Your task to perform on an android device: turn off notifications in google photos Image 0: 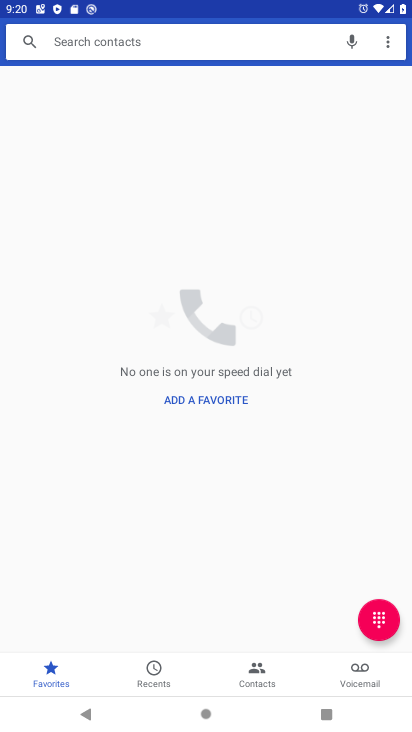
Step 0: press home button
Your task to perform on an android device: turn off notifications in google photos Image 1: 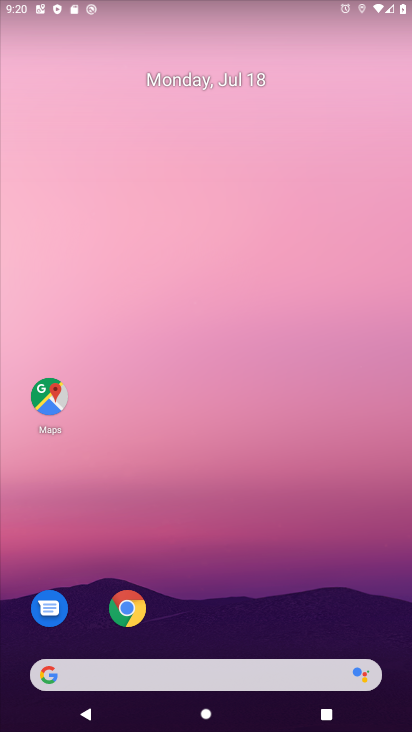
Step 1: drag from (23, 707) to (244, 181)
Your task to perform on an android device: turn off notifications in google photos Image 2: 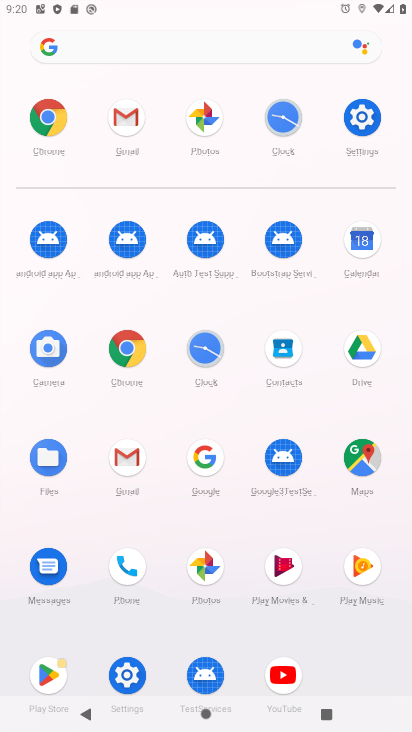
Step 2: click (194, 572)
Your task to perform on an android device: turn off notifications in google photos Image 3: 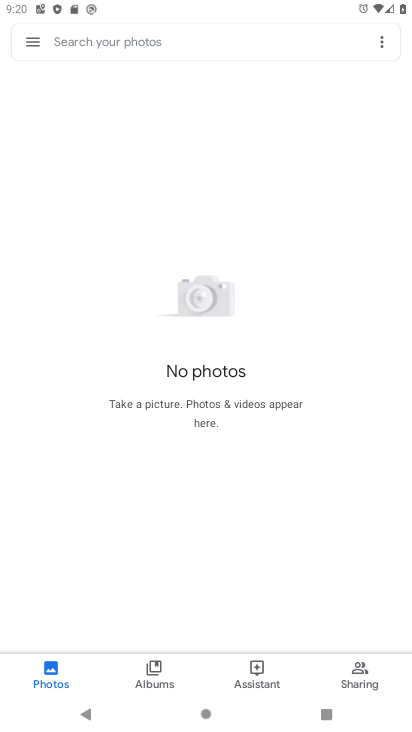
Step 3: click (35, 42)
Your task to perform on an android device: turn off notifications in google photos Image 4: 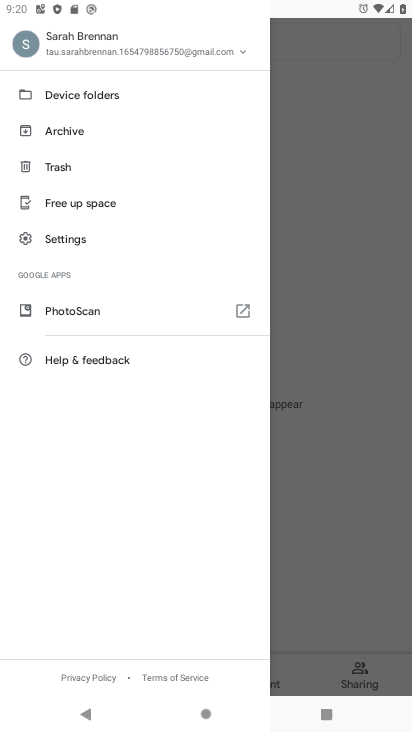
Step 4: click (63, 239)
Your task to perform on an android device: turn off notifications in google photos Image 5: 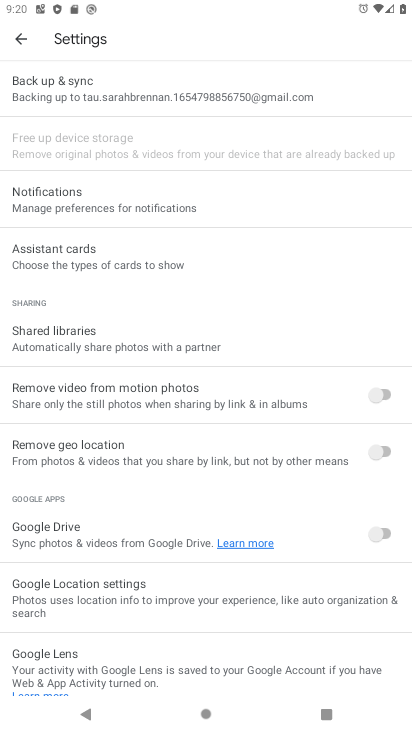
Step 5: click (85, 184)
Your task to perform on an android device: turn off notifications in google photos Image 6: 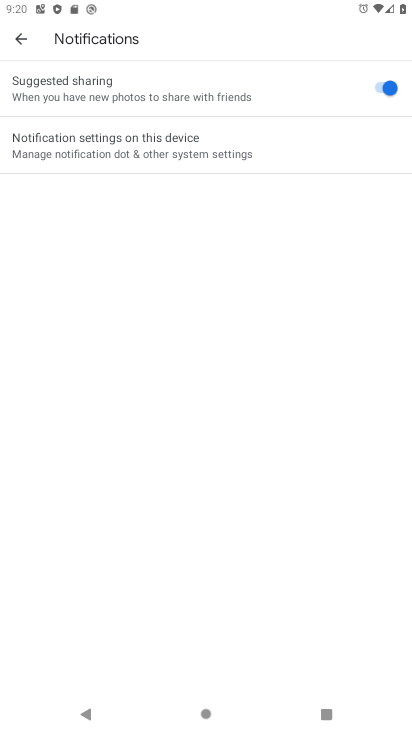
Step 6: click (101, 149)
Your task to perform on an android device: turn off notifications in google photos Image 7: 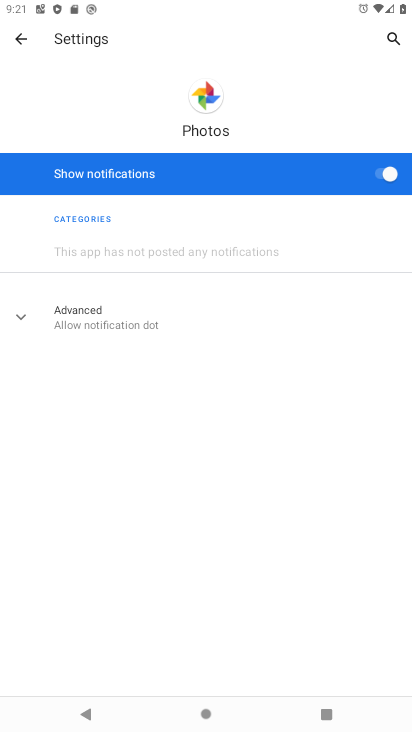
Step 7: click (386, 171)
Your task to perform on an android device: turn off notifications in google photos Image 8: 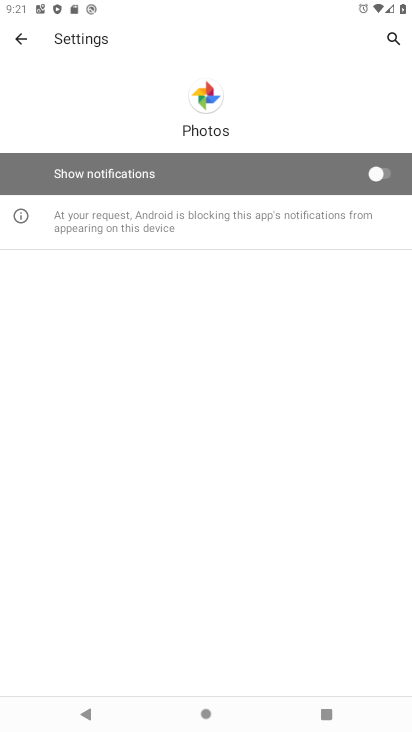
Step 8: task complete